Your task to perform on an android device: Open settings on Google Maps Image 0: 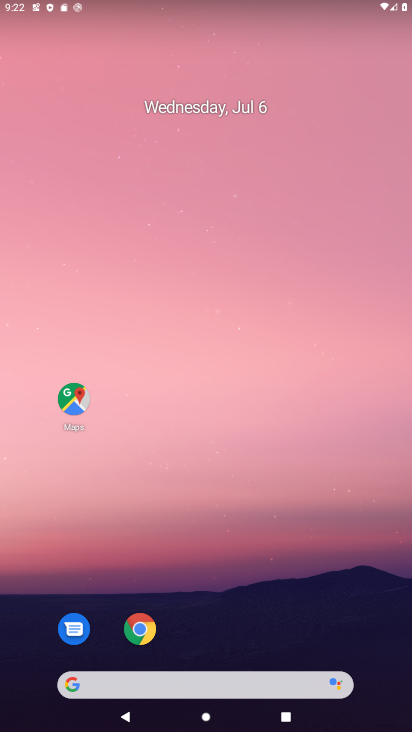
Step 0: drag from (208, 631) to (233, 159)
Your task to perform on an android device: Open settings on Google Maps Image 1: 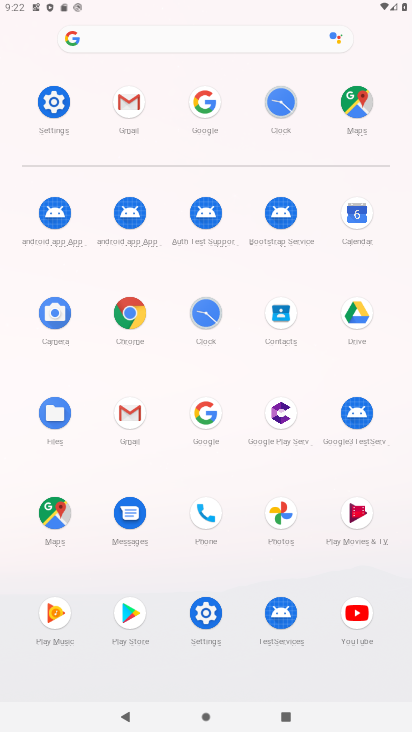
Step 1: click (54, 512)
Your task to perform on an android device: Open settings on Google Maps Image 2: 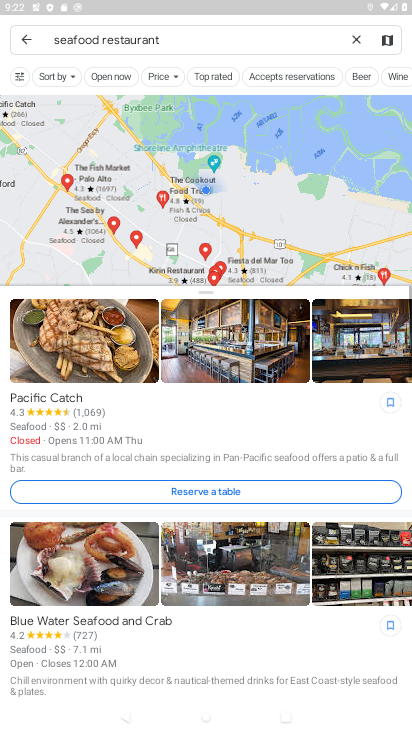
Step 2: click (350, 36)
Your task to perform on an android device: Open settings on Google Maps Image 3: 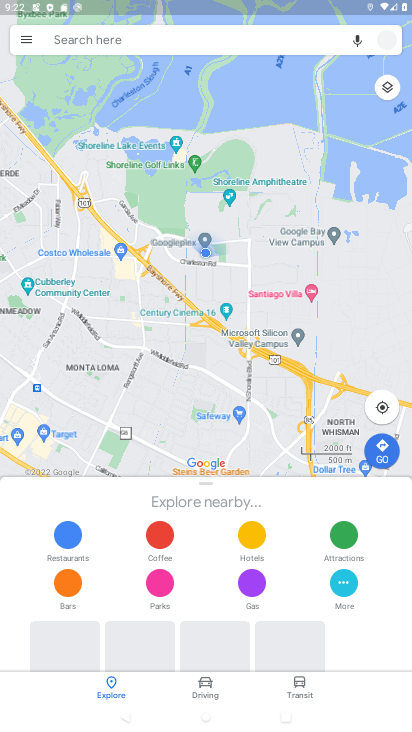
Step 3: click (26, 34)
Your task to perform on an android device: Open settings on Google Maps Image 4: 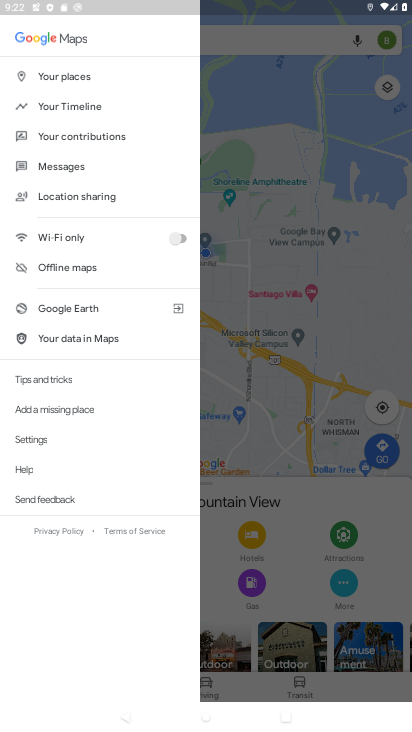
Step 4: click (34, 437)
Your task to perform on an android device: Open settings on Google Maps Image 5: 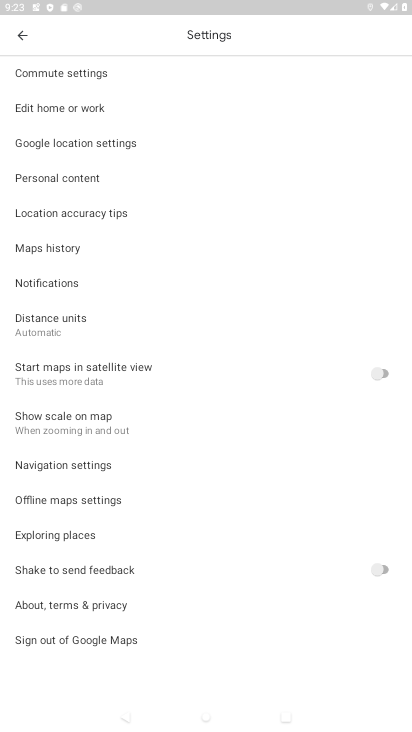
Step 5: task complete